Your task to perform on an android device: Go to location settings Image 0: 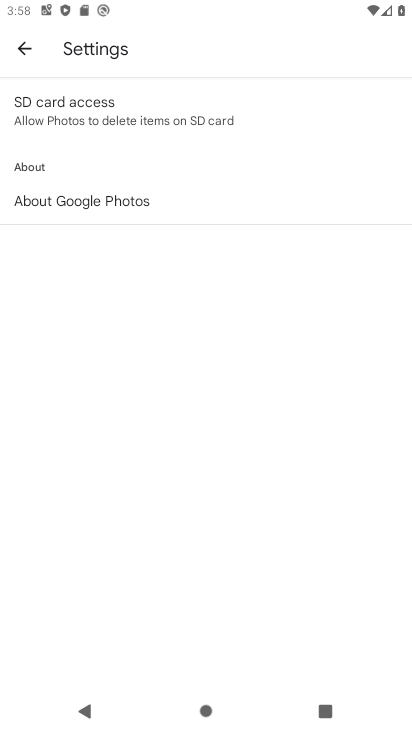
Step 0: press home button
Your task to perform on an android device: Go to location settings Image 1: 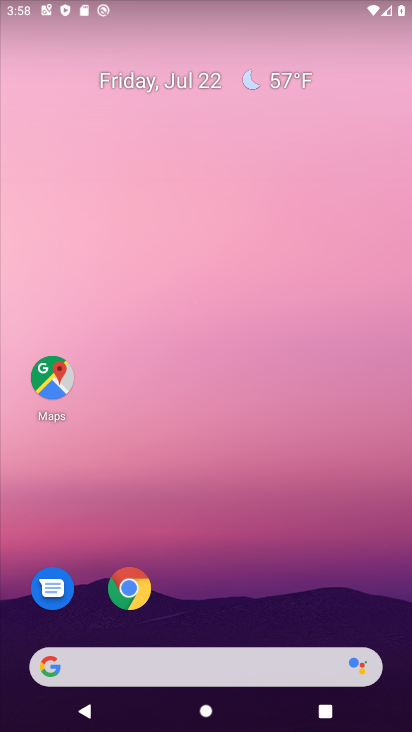
Step 1: drag from (213, 628) to (181, 72)
Your task to perform on an android device: Go to location settings Image 2: 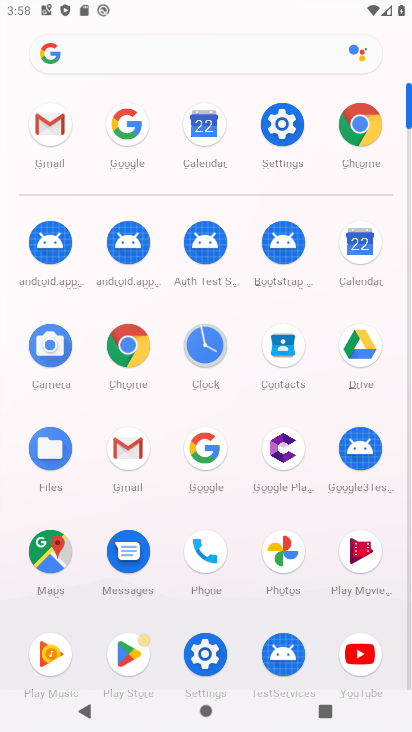
Step 2: click (278, 140)
Your task to perform on an android device: Go to location settings Image 3: 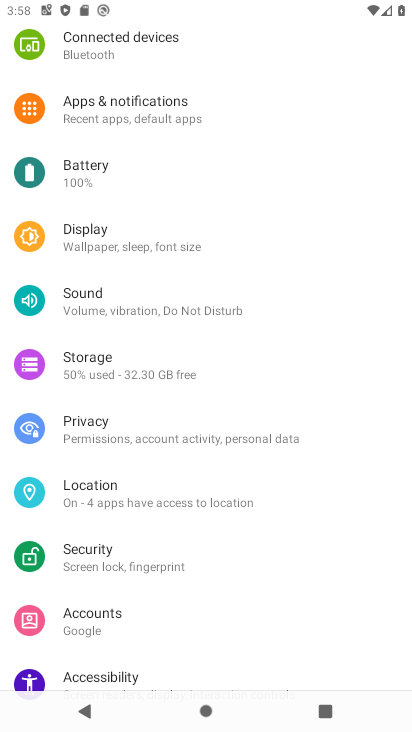
Step 3: click (81, 495)
Your task to perform on an android device: Go to location settings Image 4: 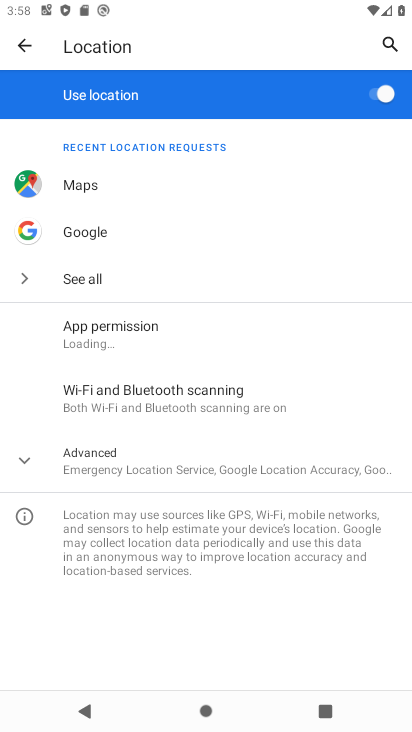
Step 4: click (103, 453)
Your task to perform on an android device: Go to location settings Image 5: 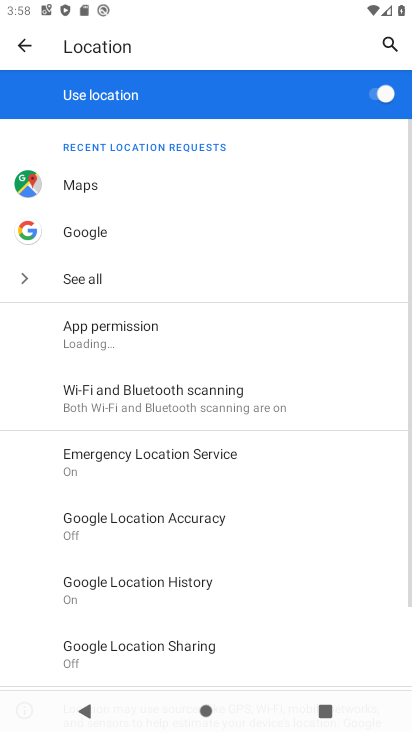
Step 5: task complete